Your task to perform on an android device: open app "Google News" Image 0: 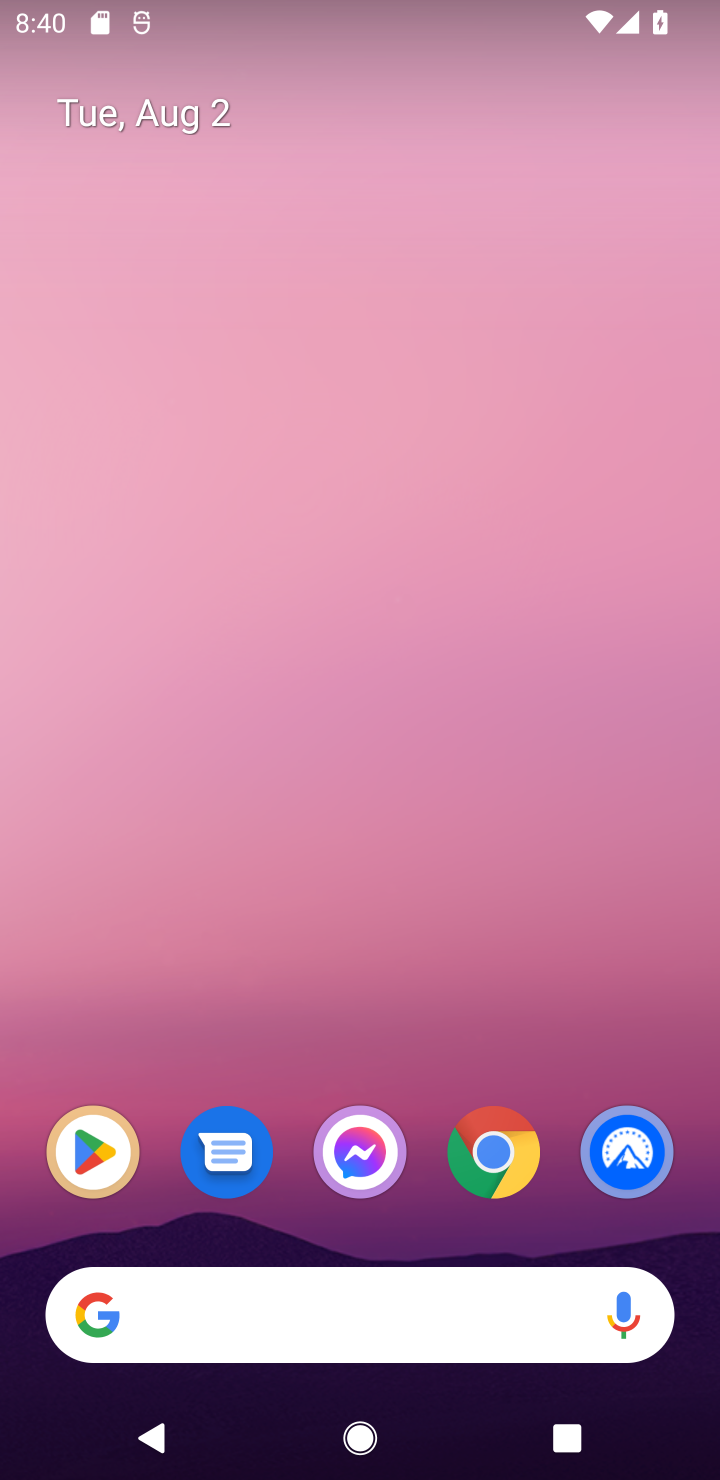
Step 0: click (90, 1155)
Your task to perform on an android device: open app "Google News" Image 1: 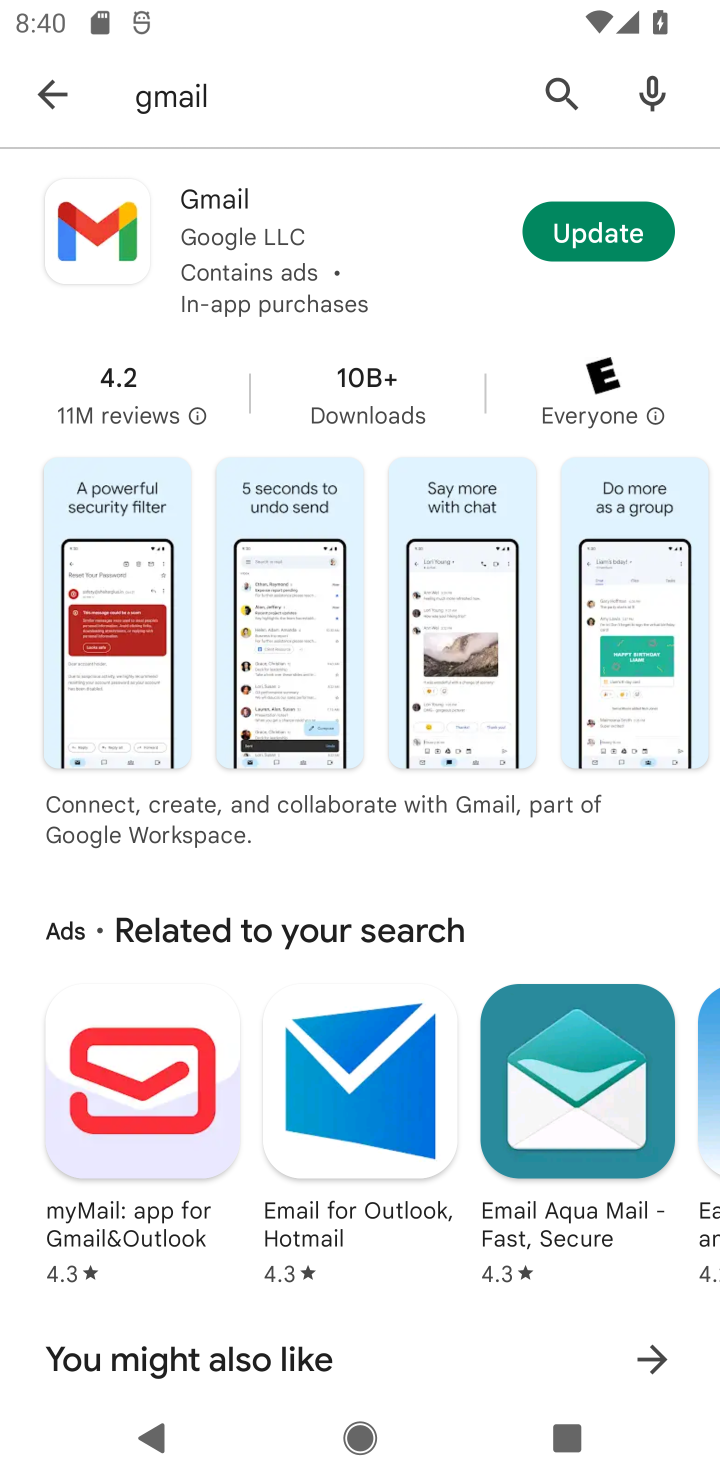
Step 1: click (43, 78)
Your task to perform on an android device: open app "Google News" Image 2: 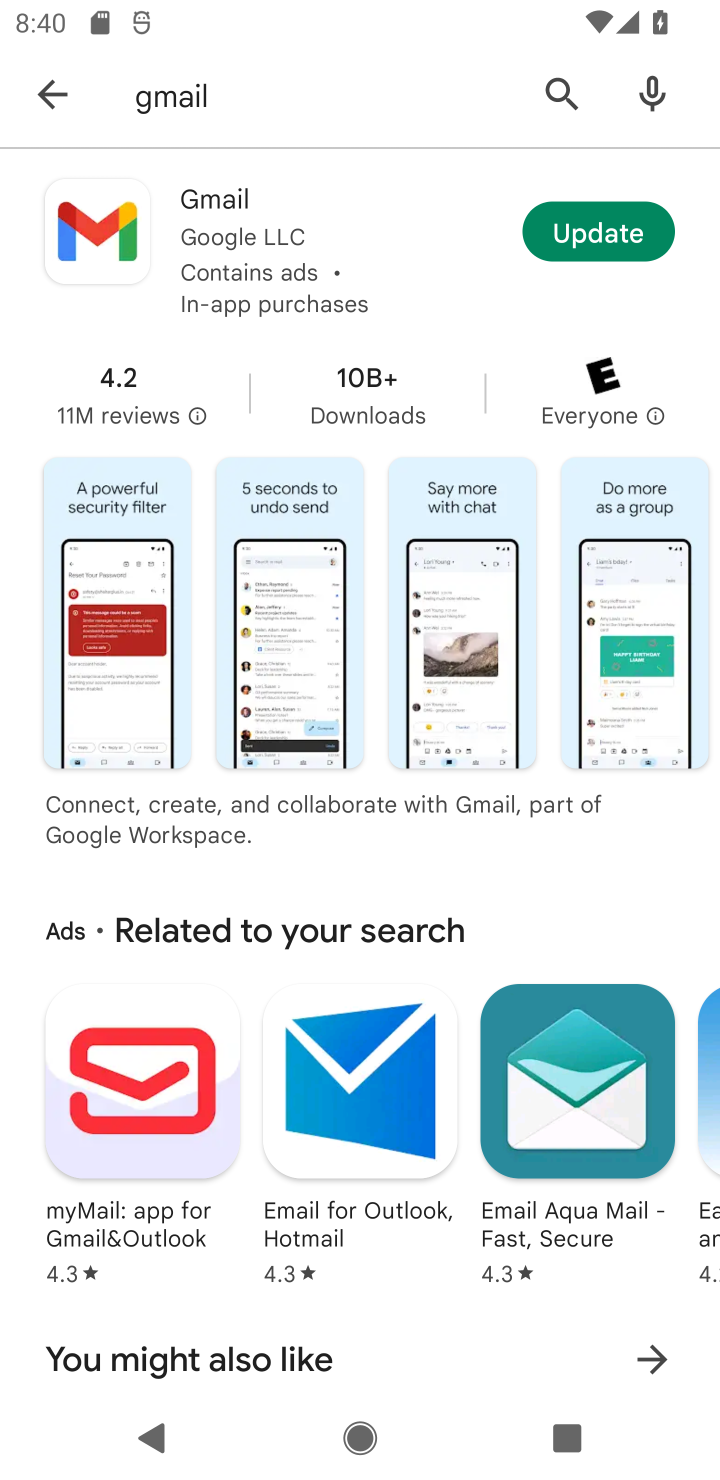
Step 2: click (49, 95)
Your task to perform on an android device: open app "Google News" Image 3: 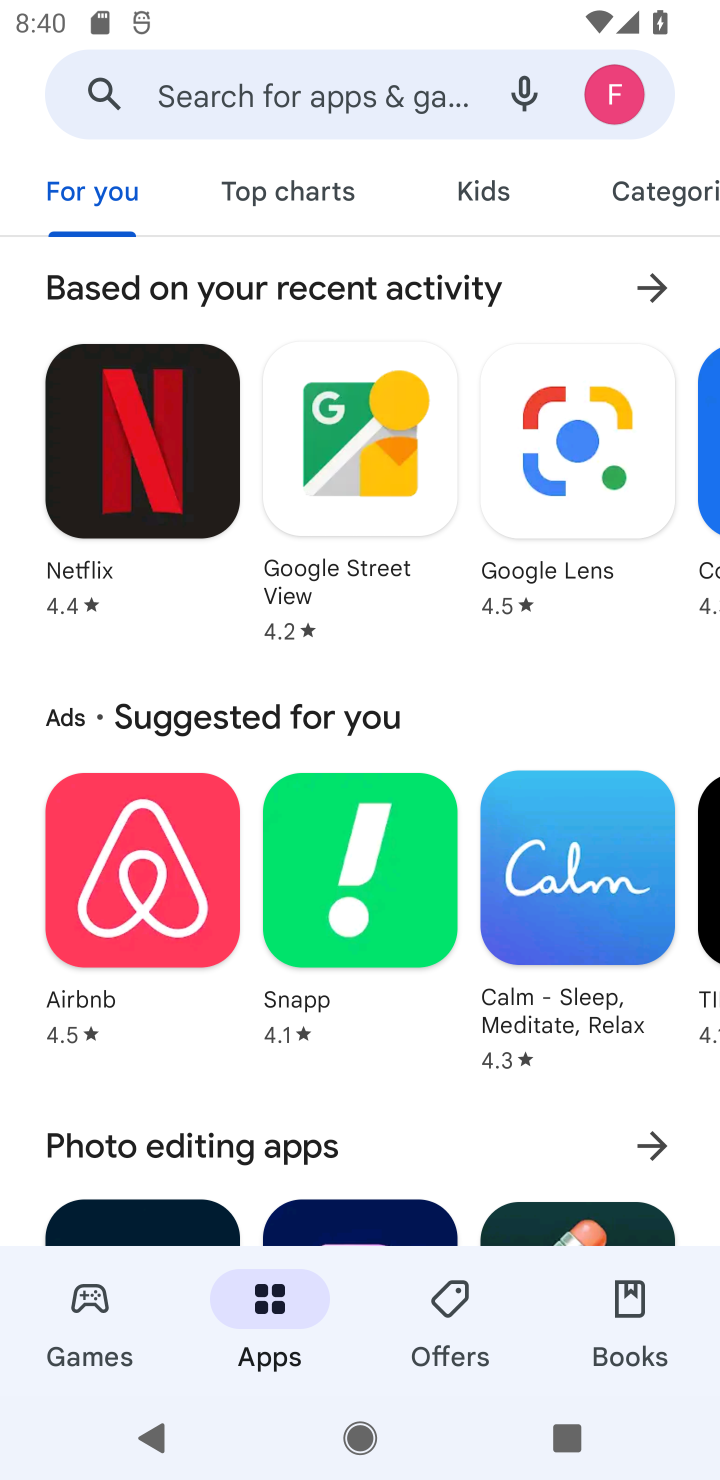
Step 3: click (265, 86)
Your task to perform on an android device: open app "Google News" Image 4: 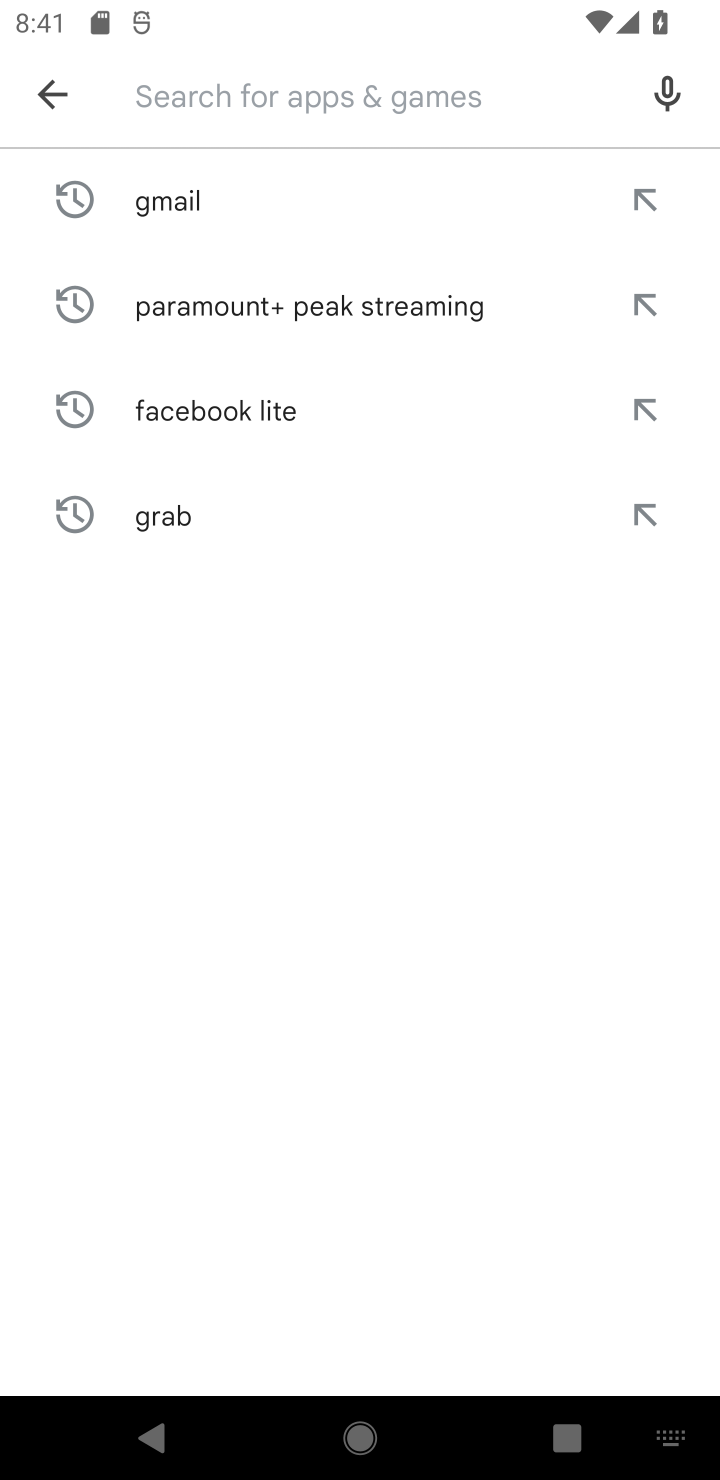
Step 4: type "Google News"
Your task to perform on an android device: open app "Google News" Image 5: 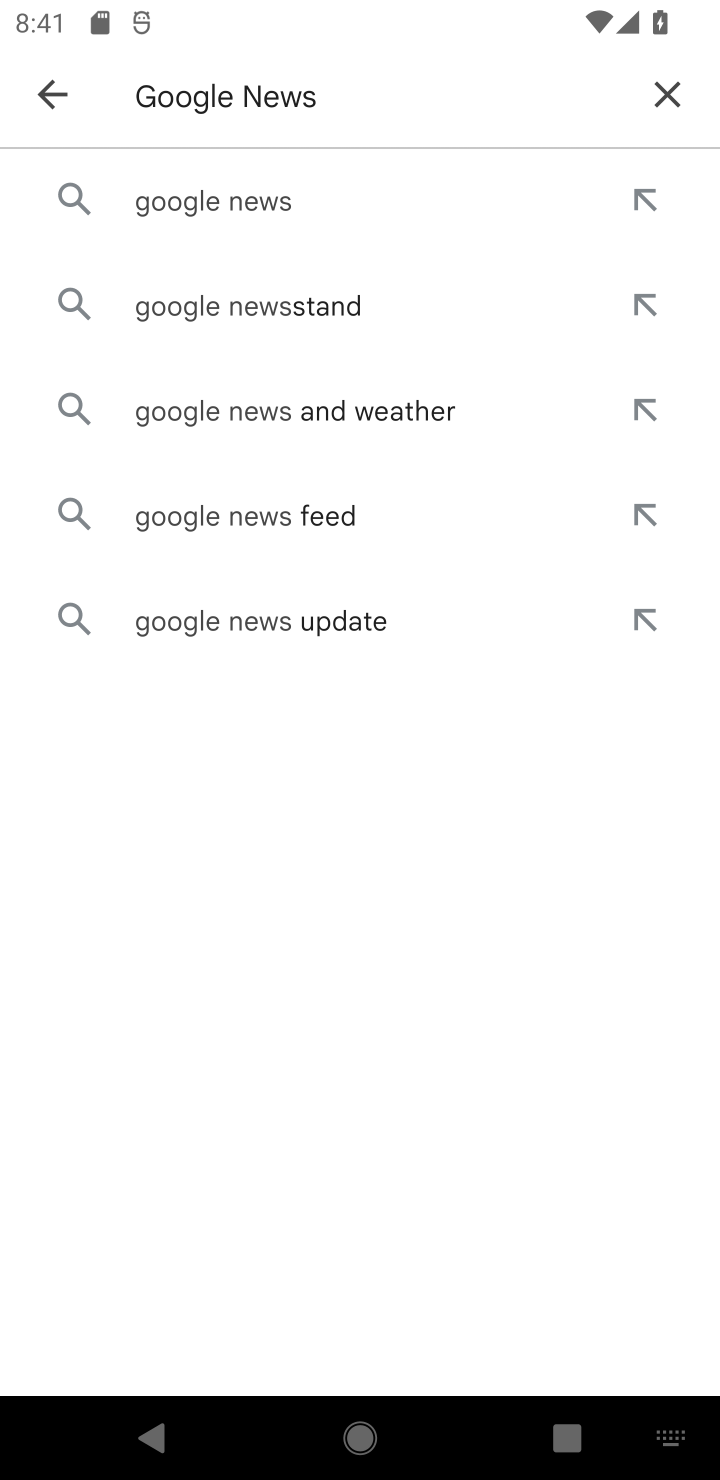
Step 5: click (211, 205)
Your task to perform on an android device: open app "Google News" Image 6: 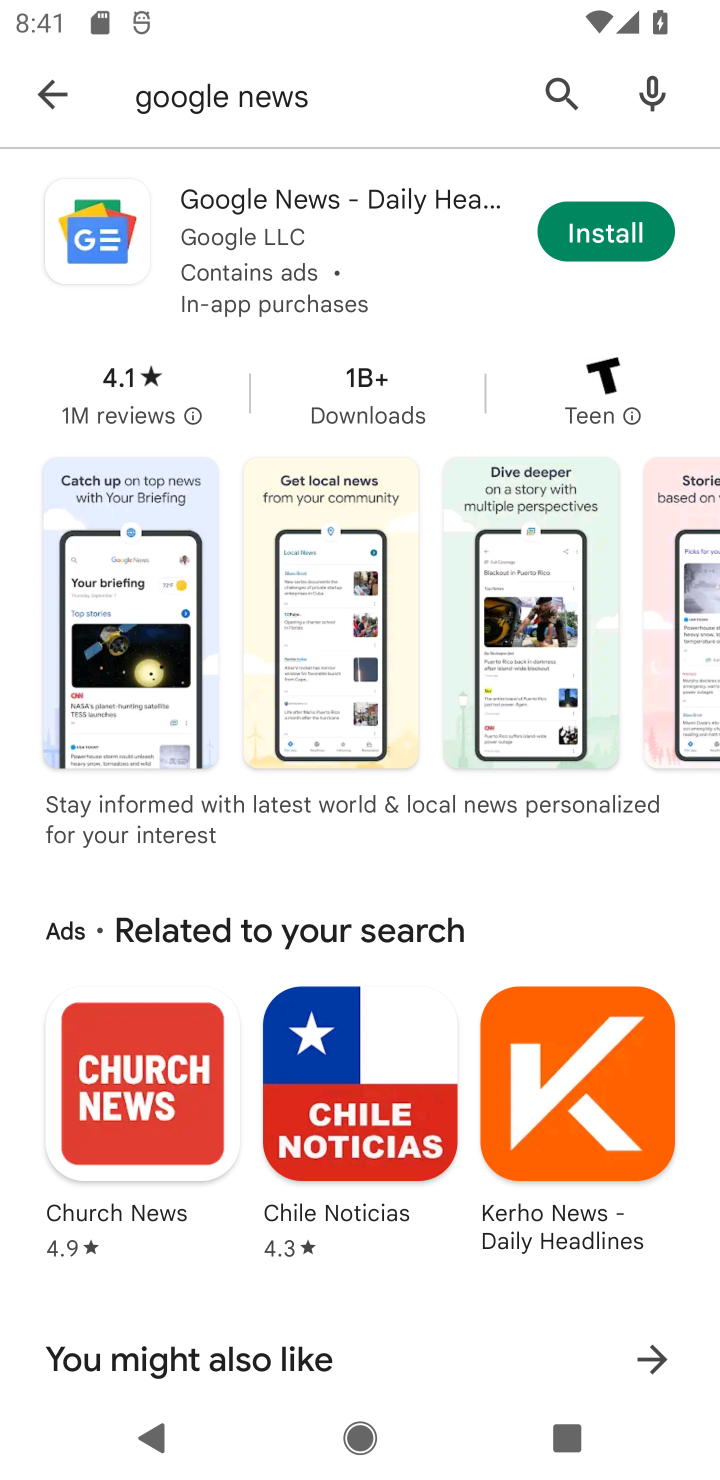
Step 6: click (595, 225)
Your task to perform on an android device: open app "Google News" Image 7: 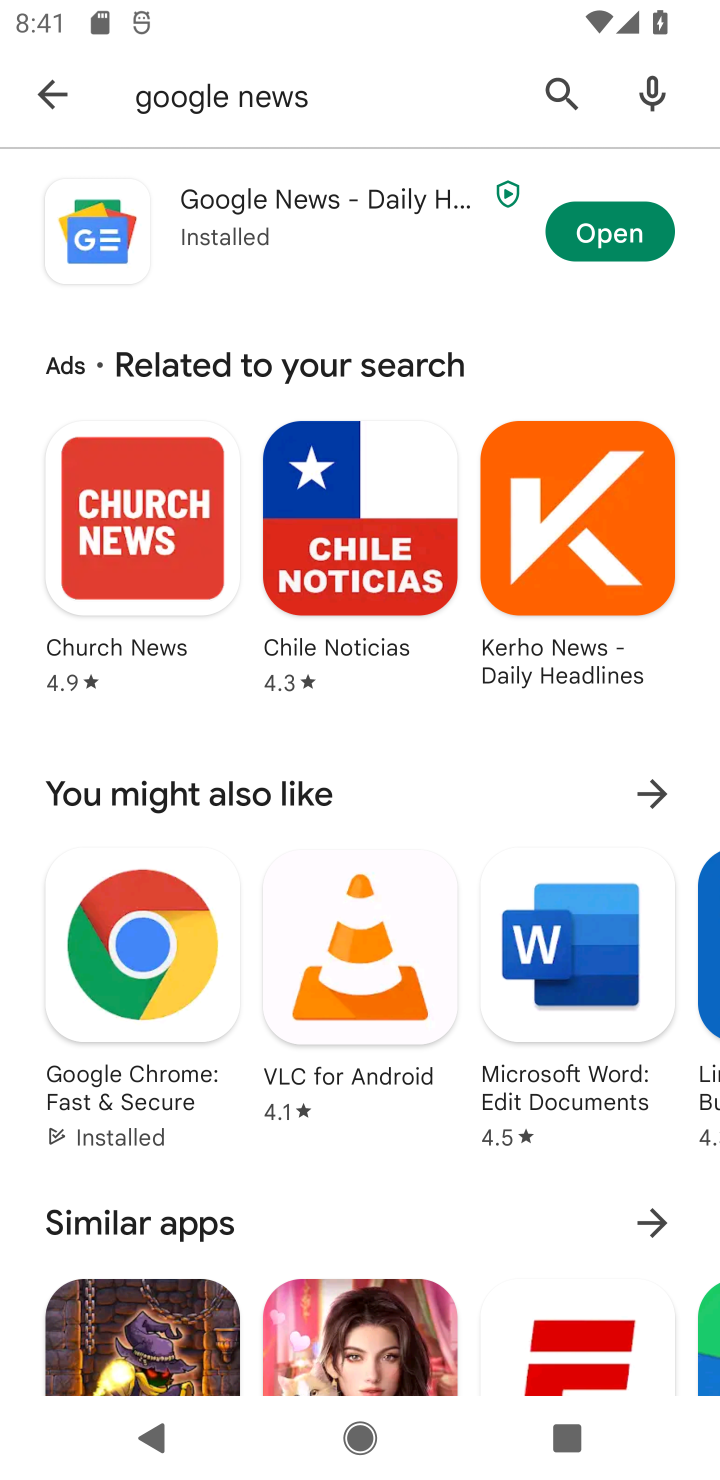
Step 7: click (595, 225)
Your task to perform on an android device: open app "Google News" Image 8: 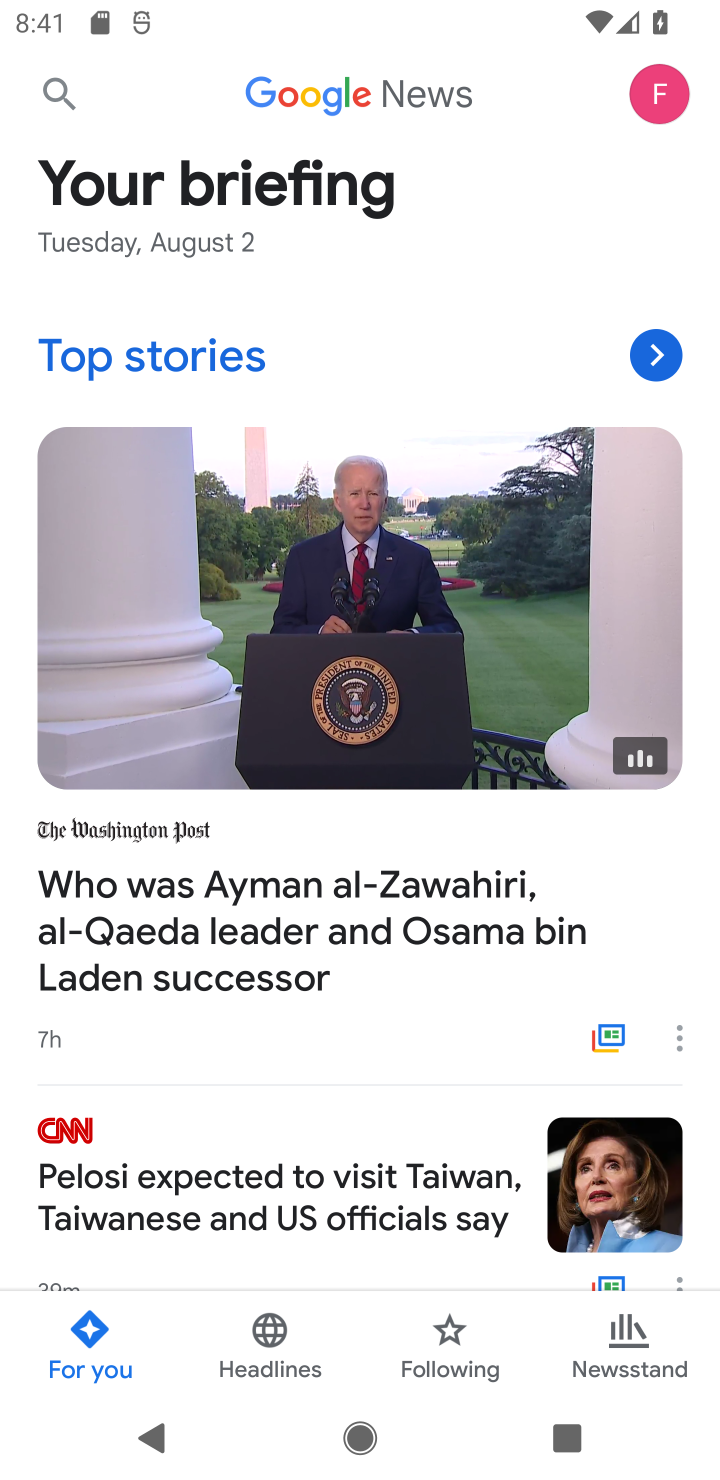
Step 8: task complete